Your task to perform on an android device: open app "Google Docs" (install if not already installed) Image 0: 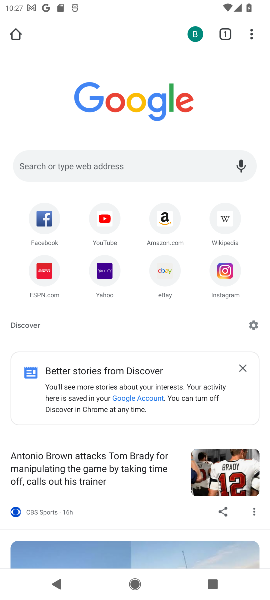
Step 0: press home button
Your task to perform on an android device: open app "Google Docs" (install if not already installed) Image 1: 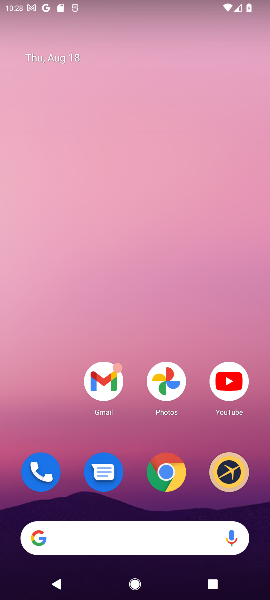
Step 1: drag from (183, 441) to (146, 64)
Your task to perform on an android device: open app "Google Docs" (install if not already installed) Image 2: 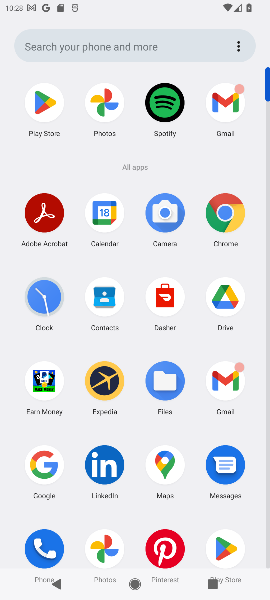
Step 2: click (232, 542)
Your task to perform on an android device: open app "Google Docs" (install if not already installed) Image 3: 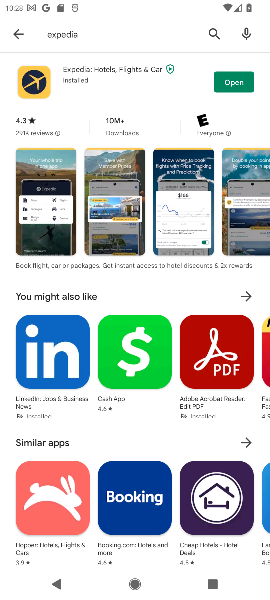
Step 3: click (209, 38)
Your task to perform on an android device: open app "Google Docs" (install if not already installed) Image 4: 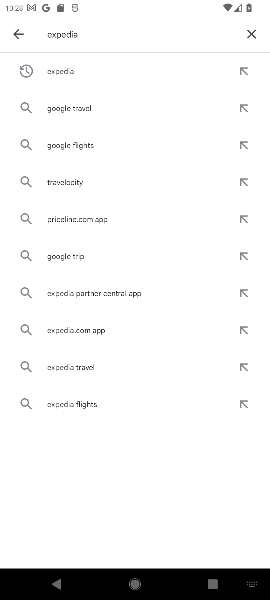
Step 4: click (252, 34)
Your task to perform on an android device: open app "Google Docs" (install if not already installed) Image 5: 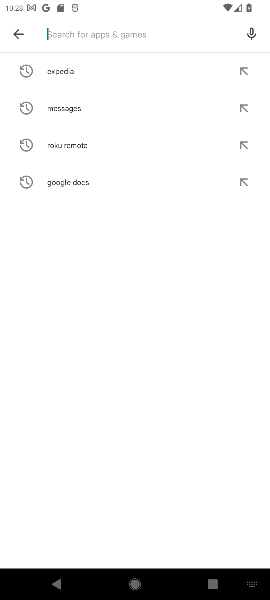
Step 5: type "google docs"
Your task to perform on an android device: open app "Google Docs" (install if not already installed) Image 6: 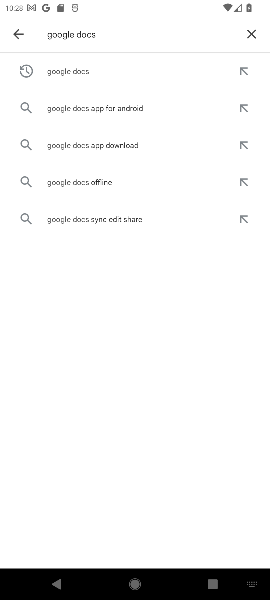
Step 6: click (109, 68)
Your task to perform on an android device: open app "Google Docs" (install if not already installed) Image 7: 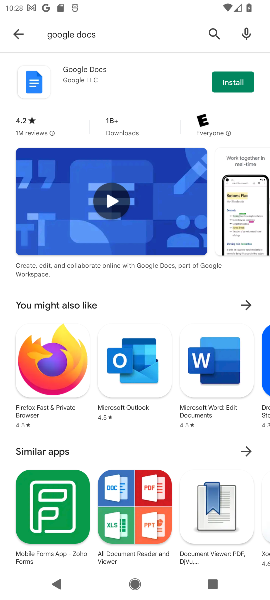
Step 7: click (229, 84)
Your task to perform on an android device: open app "Google Docs" (install if not already installed) Image 8: 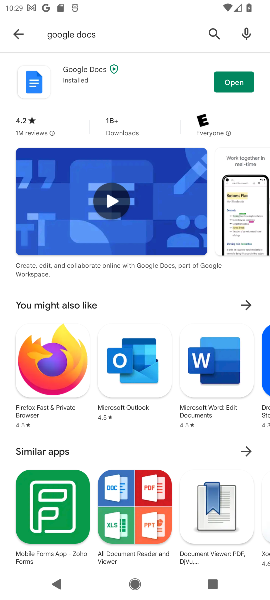
Step 8: click (227, 87)
Your task to perform on an android device: open app "Google Docs" (install if not already installed) Image 9: 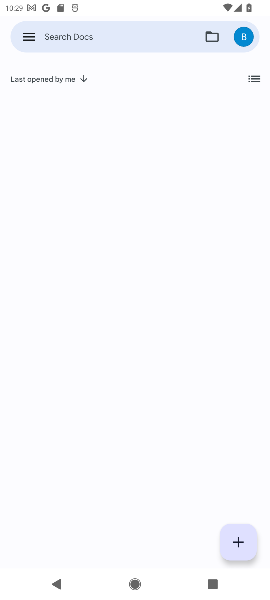
Step 9: click (120, 168)
Your task to perform on an android device: open app "Google Docs" (install if not already installed) Image 10: 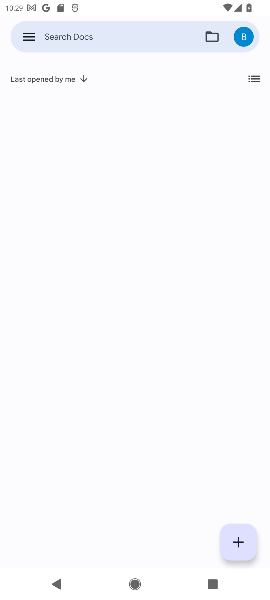
Step 10: task complete